Your task to perform on an android device: Go to eBay Image 0: 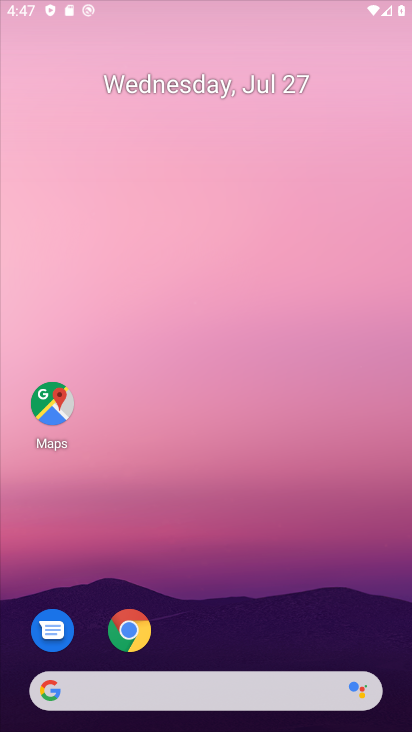
Step 0: click (137, 630)
Your task to perform on an android device: Go to eBay Image 1: 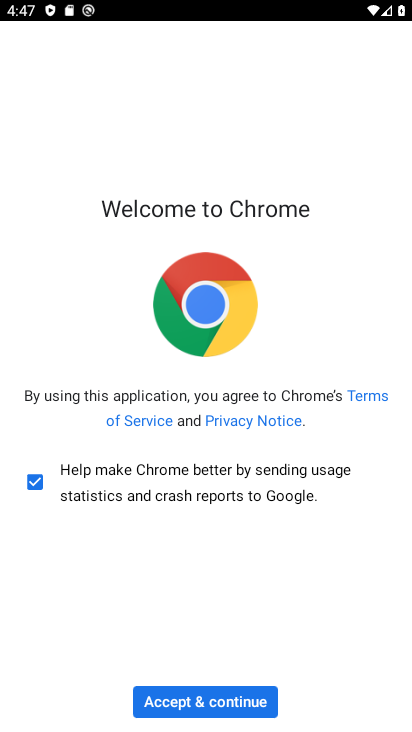
Step 1: click (204, 703)
Your task to perform on an android device: Go to eBay Image 2: 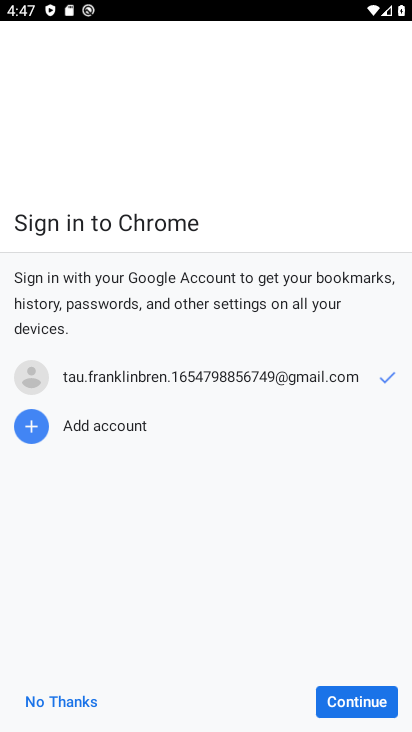
Step 2: click (354, 691)
Your task to perform on an android device: Go to eBay Image 3: 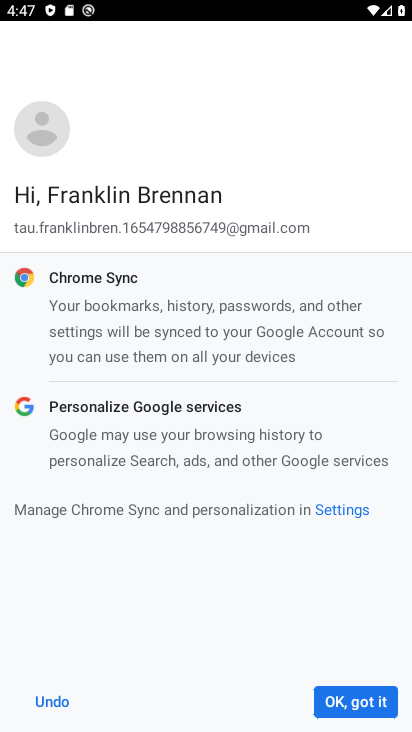
Step 3: click (328, 698)
Your task to perform on an android device: Go to eBay Image 4: 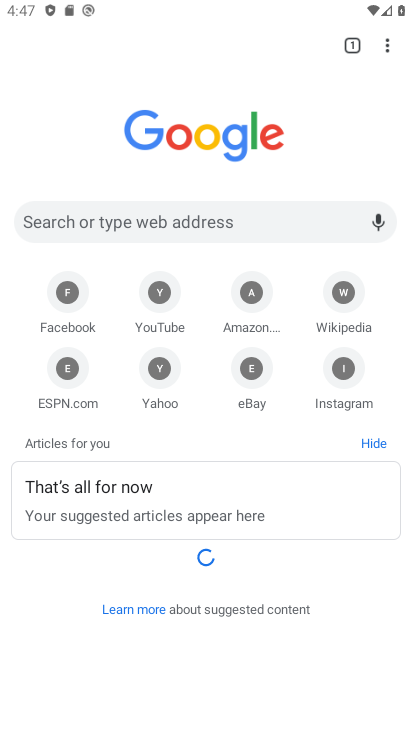
Step 4: click (262, 368)
Your task to perform on an android device: Go to eBay Image 5: 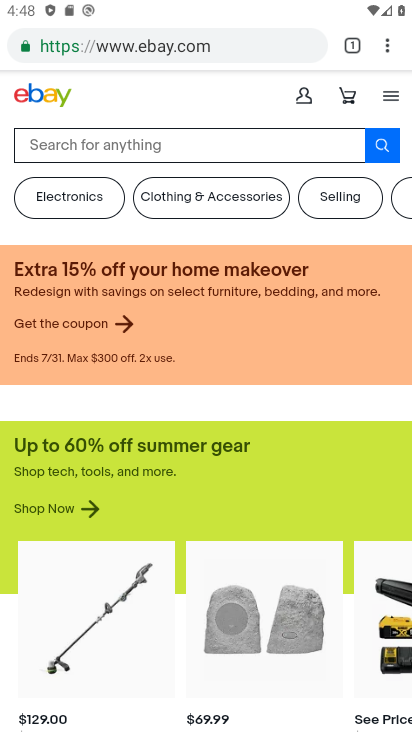
Step 5: task complete